Your task to perform on an android device: Go to CNN.com Image 0: 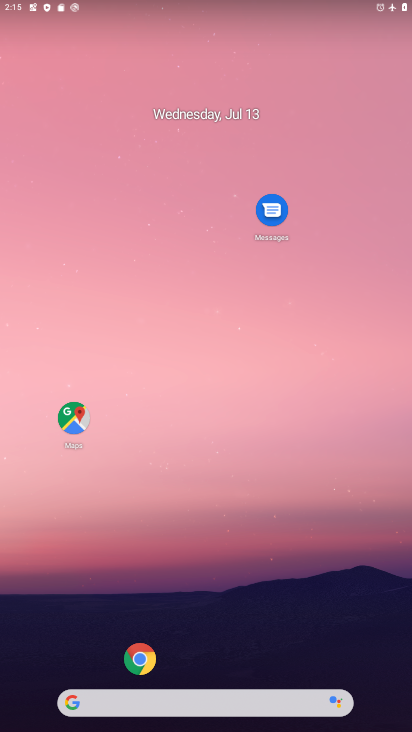
Step 0: click (135, 695)
Your task to perform on an android device: Go to CNN.com Image 1: 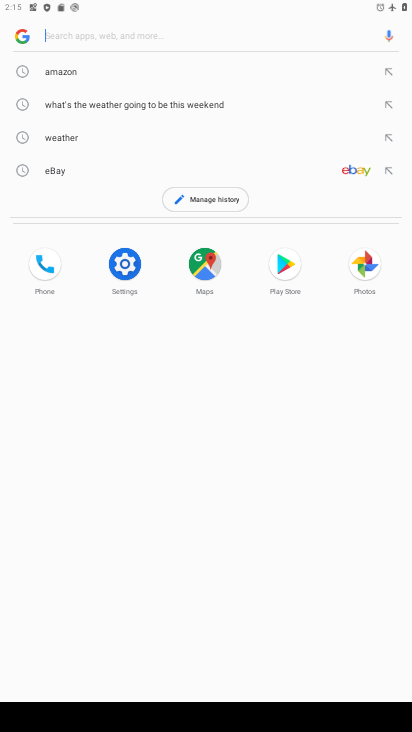
Step 1: type " CNN.com"
Your task to perform on an android device: Go to CNN.com Image 2: 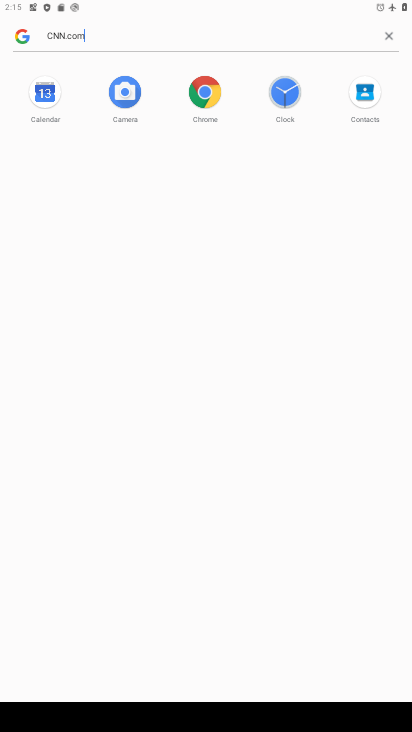
Step 2: type ""
Your task to perform on an android device: Go to CNN.com Image 3: 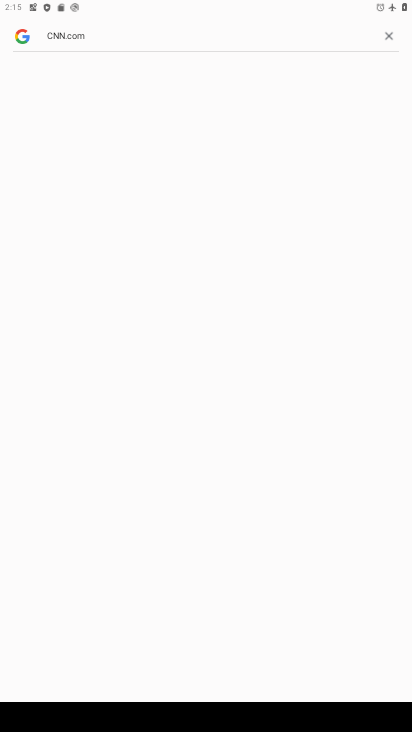
Step 3: type ""
Your task to perform on an android device: Go to CNN.com Image 4: 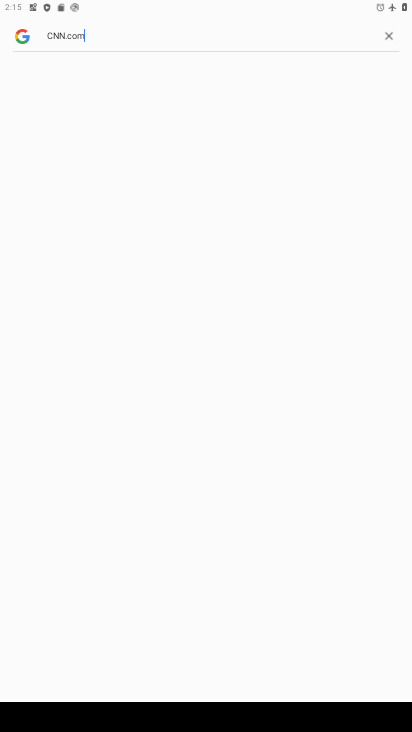
Step 4: type ""
Your task to perform on an android device: Go to CNN.com Image 5: 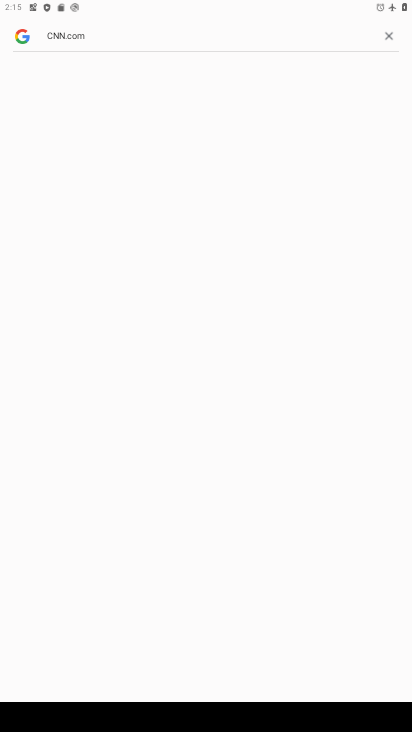
Step 5: type ""
Your task to perform on an android device: Go to CNN.com Image 6: 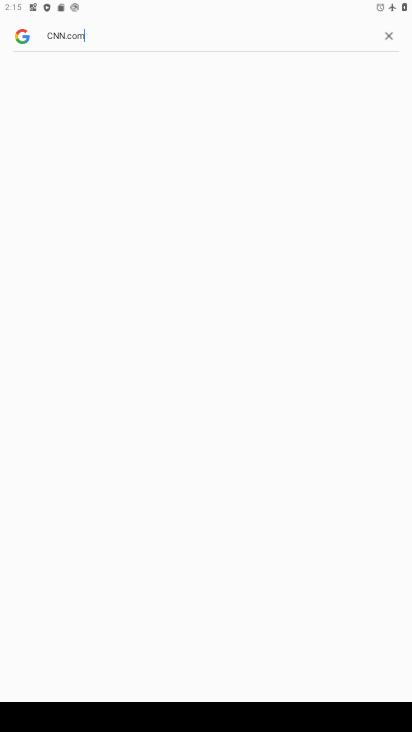
Step 6: task complete